Your task to perform on an android device: Go to battery settings Image 0: 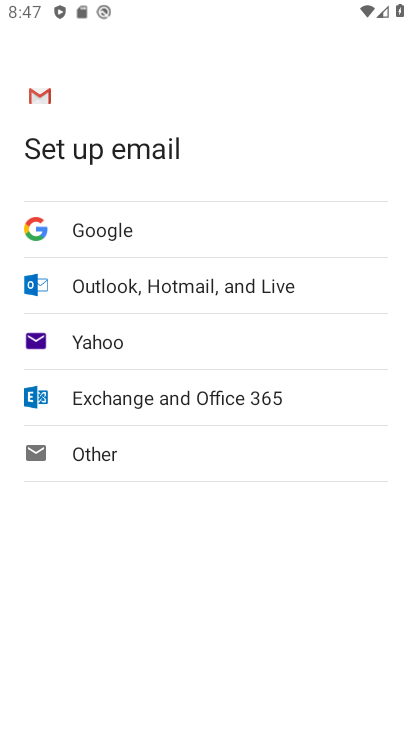
Step 0: press home button
Your task to perform on an android device: Go to battery settings Image 1: 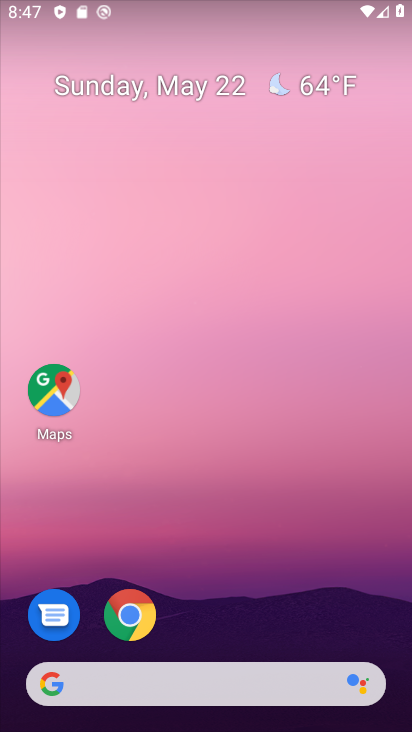
Step 1: drag from (253, 580) to (306, 152)
Your task to perform on an android device: Go to battery settings Image 2: 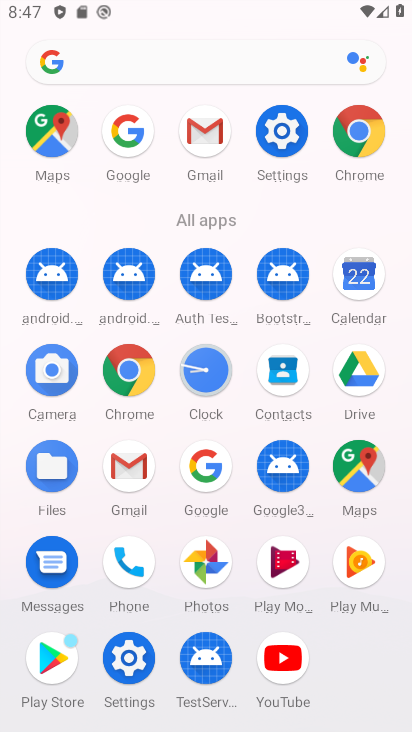
Step 2: click (292, 117)
Your task to perform on an android device: Go to battery settings Image 3: 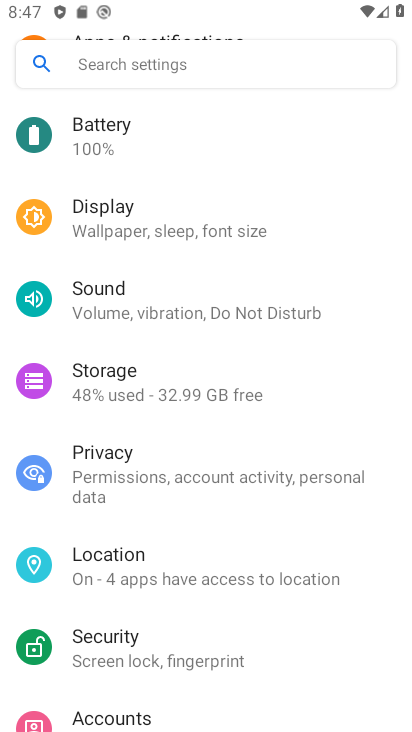
Step 3: click (177, 143)
Your task to perform on an android device: Go to battery settings Image 4: 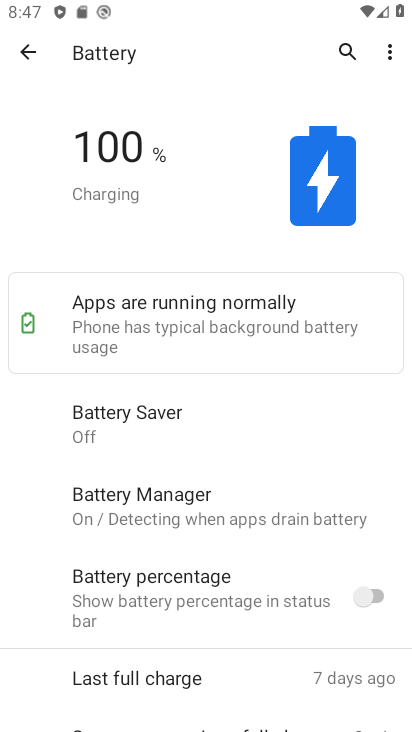
Step 4: task complete